Your task to perform on an android device: delete location history Image 0: 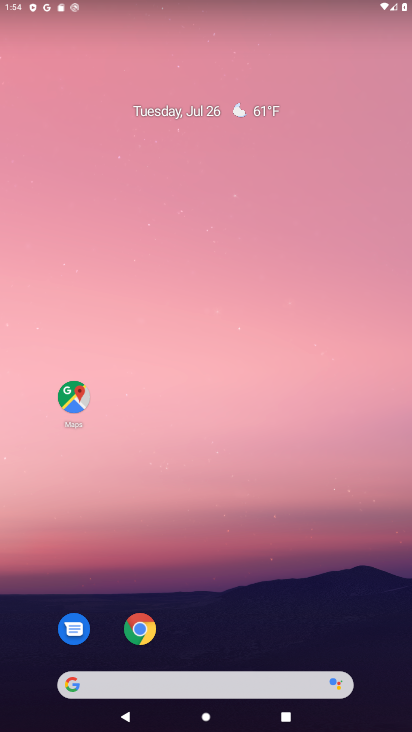
Step 0: click (71, 395)
Your task to perform on an android device: delete location history Image 1: 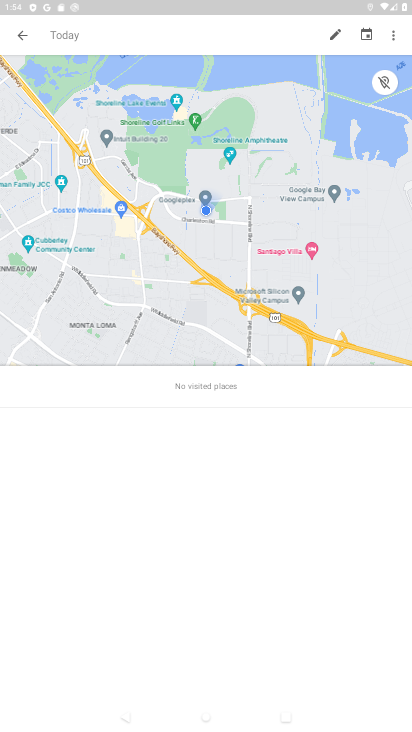
Step 1: click (392, 34)
Your task to perform on an android device: delete location history Image 2: 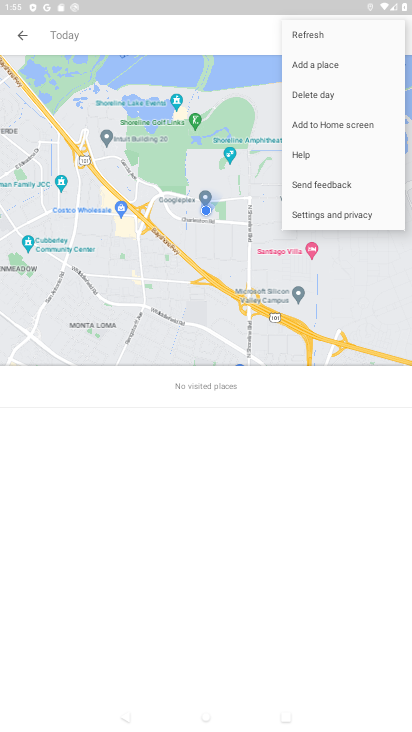
Step 2: click (310, 96)
Your task to perform on an android device: delete location history Image 3: 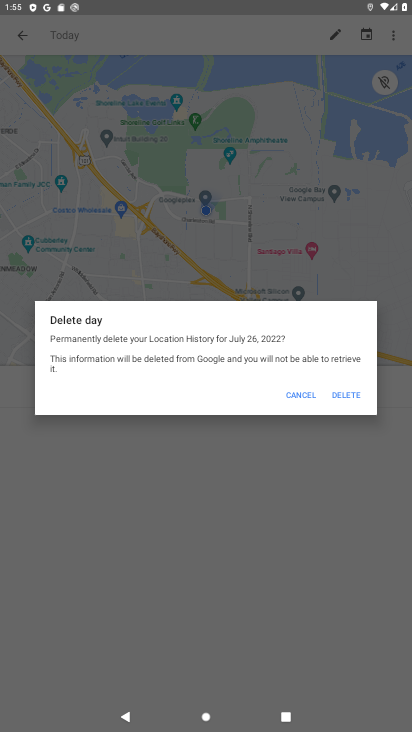
Step 3: click (344, 396)
Your task to perform on an android device: delete location history Image 4: 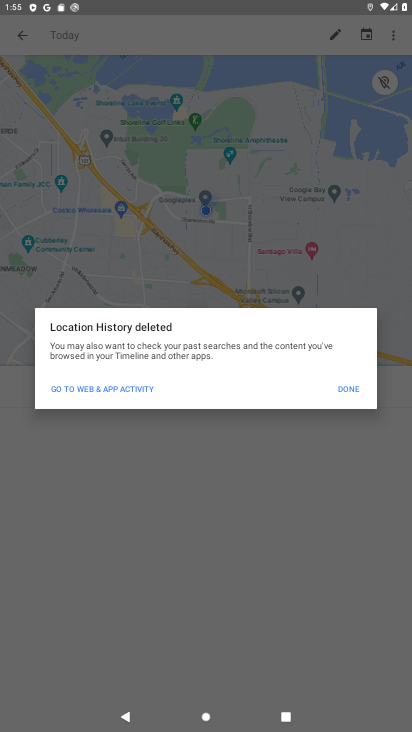
Step 4: click (344, 389)
Your task to perform on an android device: delete location history Image 5: 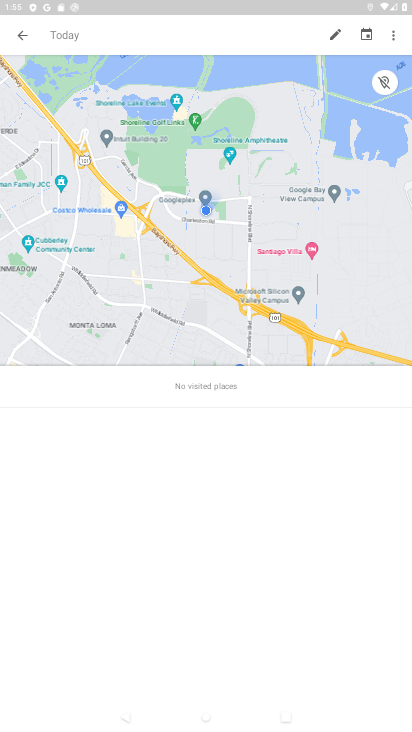
Step 5: task complete